Your task to perform on an android device: delete the emails in spam in the gmail app Image 0: 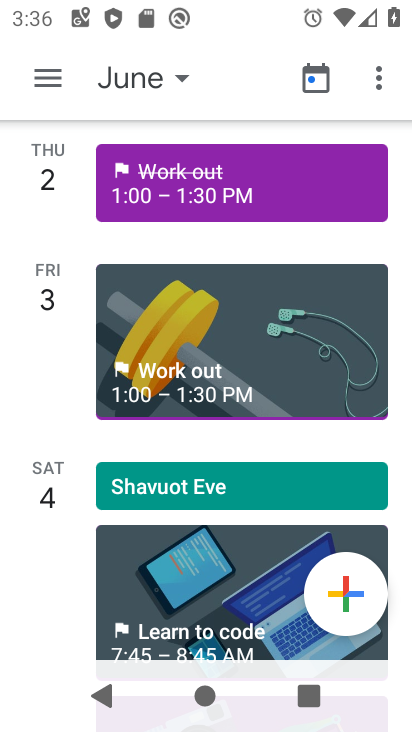
Step 0: press home button
Your task to perform on an android device: delete the emails in spam in the gmail app Image 1: 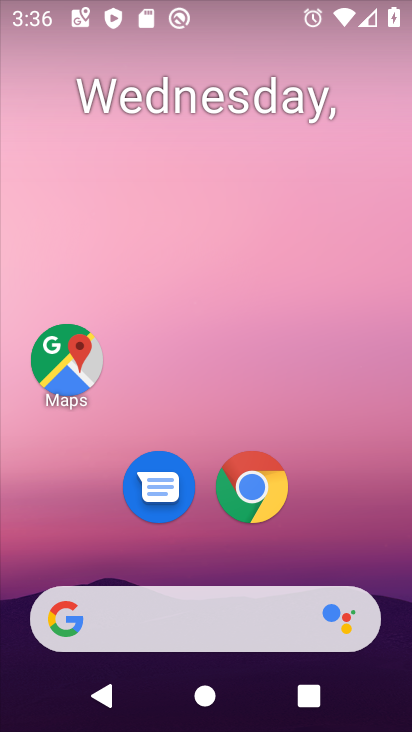
Step 1: drag from (352, 538) to (348, 227)
Your task to perform on an android device: delete the emails in spam in the gmail app Image 2: 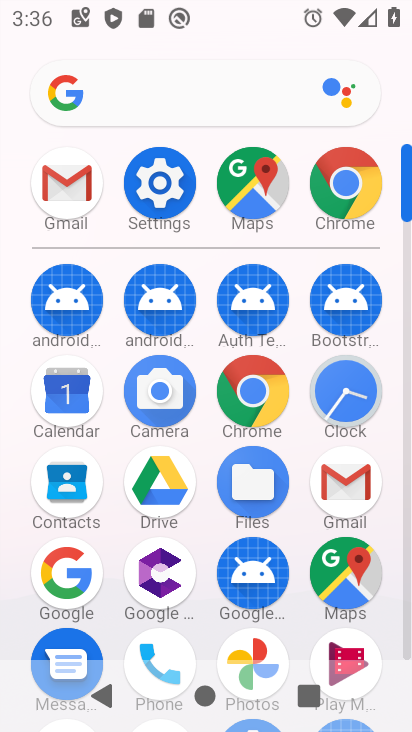
Step 2: click (350, 490)
Your task to perform on an android device: delete the emails in spam in the gmail app Image 3: 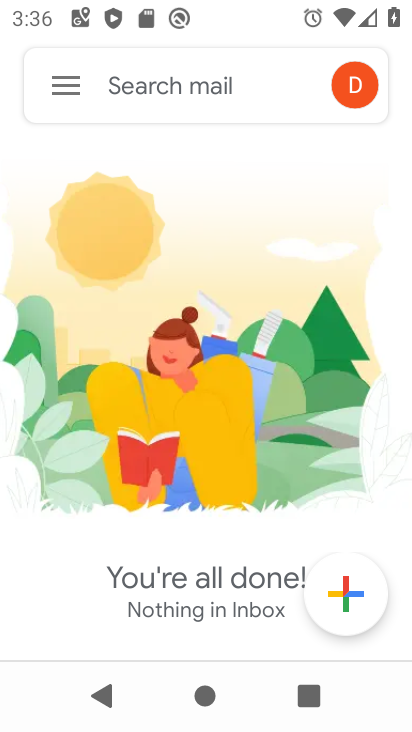
Step 3: click (70, 89)
Your task to perform on an android device: delete the emails in spam in the gmail app Image 4: 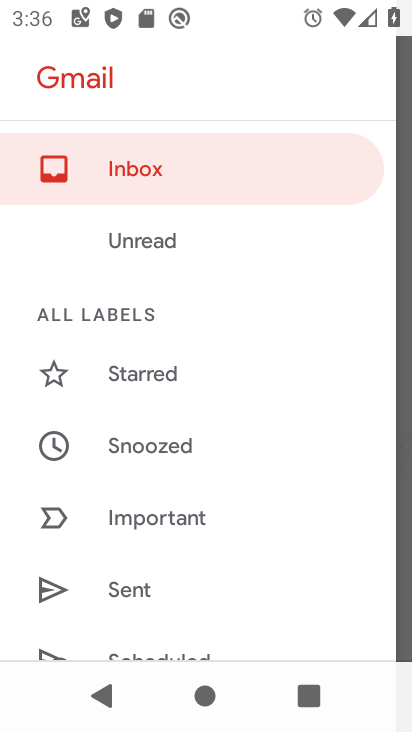
Step 4: drag from (250, 428) to (257, 319)
Your task to perform on an android device: delete the emails in spam in the gmail app Image 5: 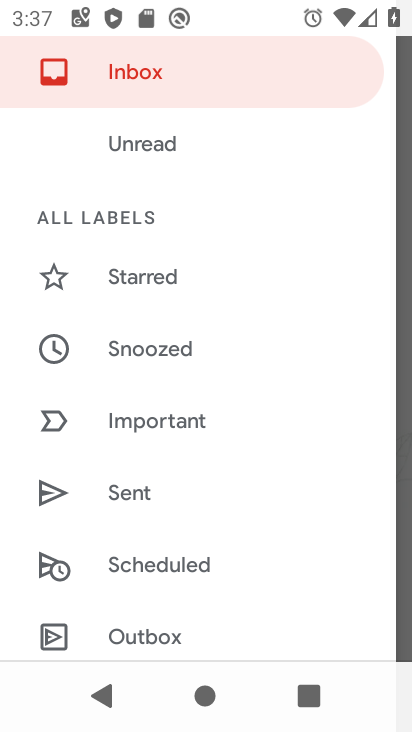
Step 5: drag from (253, 468) to (252, 362)
Your task to perform on an android device: delete the emails in spam in the gmail app Image 6: 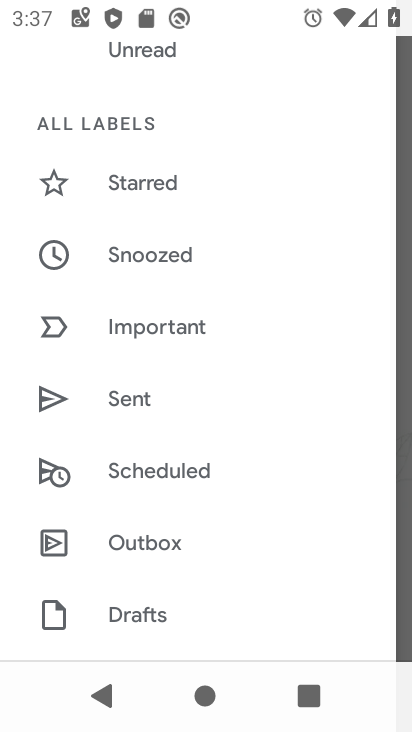
Step 6: drag from (296, 502) to (301, 358)
Your task to perform on an android device: delete the emails in spam in the gmail app Image 7: 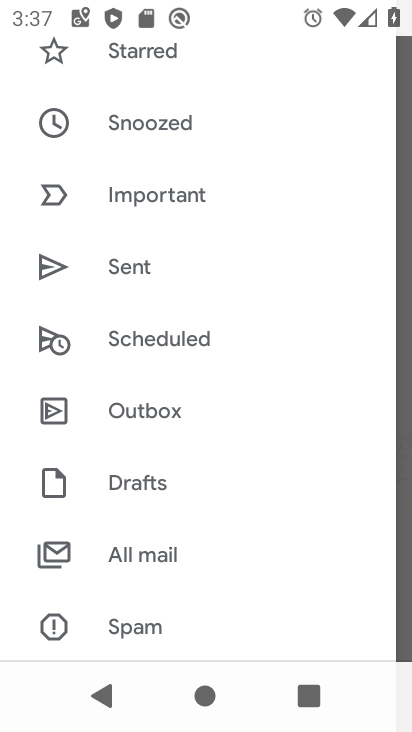
Step 7: drag from (302, 491) to (299, 317)
Your task to perform on an android device: delete the emails in spam in the gmail app Image 8: 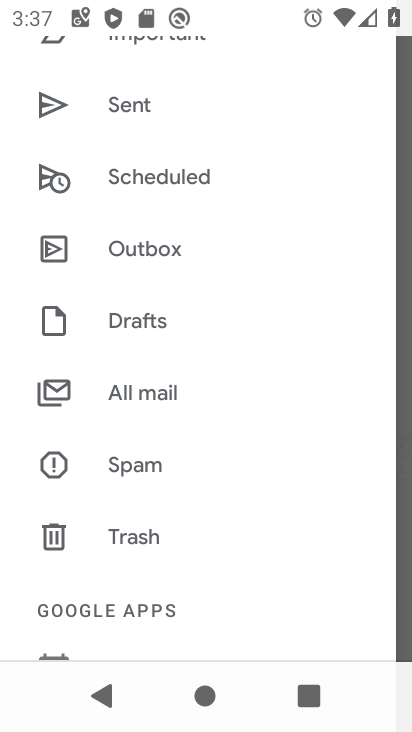
Step 8: drag from (304, 494) to (306, 363)
Your task to perform on an android device: delete the emails in spam in the gmail app Image 9: 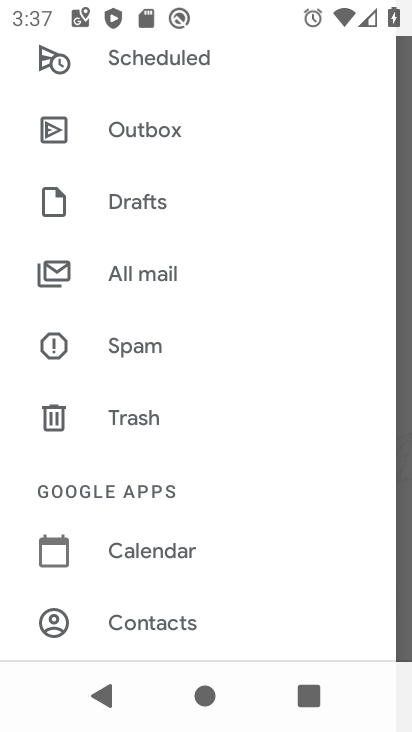
Step 9: drag from (296, 283) to (303, 425)
Your task to perform on an android device: delete the emails in spam in the gmail app Image 10: 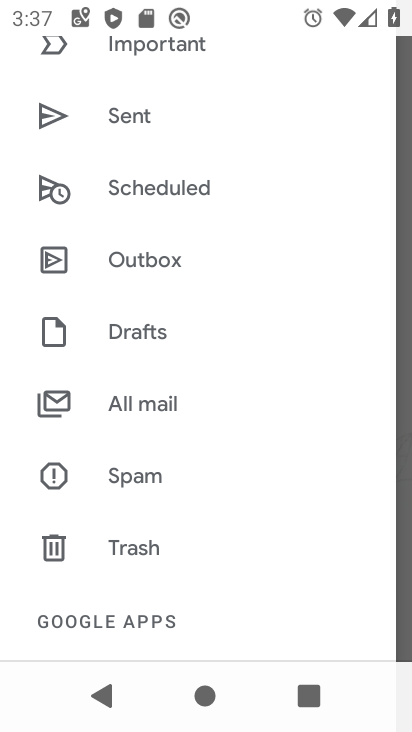
Step 10: drag from (298, 271) to (318, 377)
Your task to perform on an android device: delete the emails in spam in the gmail app Image 11: 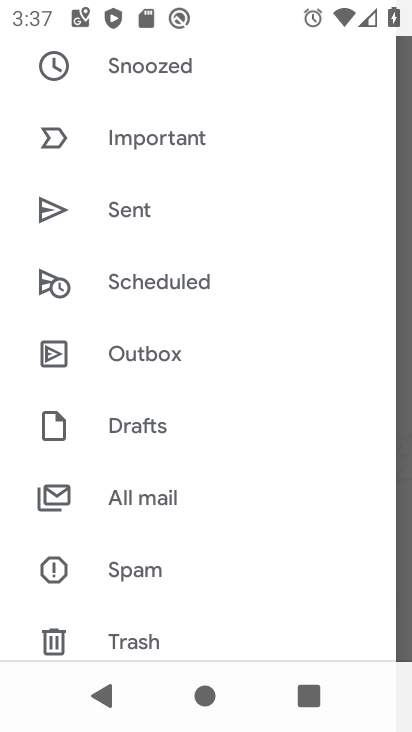
Step 11: drag from (310, 213) to (329, 456)
Your task to perform on an android device: delete the emails in spam in the gmail app Image 12: 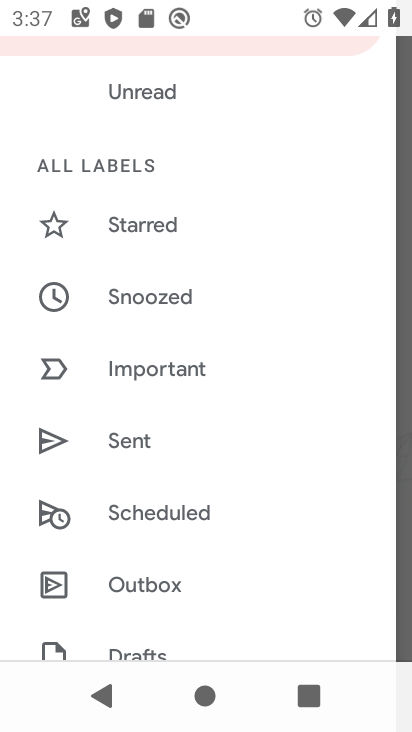
Step 12: drag from (293, 187) to (274, 380)
Your task to perform on an android device: delete the emails in spam in the gmail app Image 13: 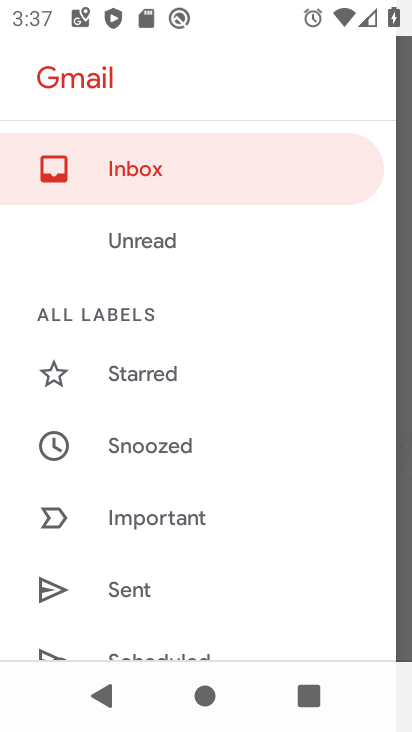
Step 13: click (248, 170)
Your task to perform on an android device: delete the emails in spam in the gmail app Image 14: 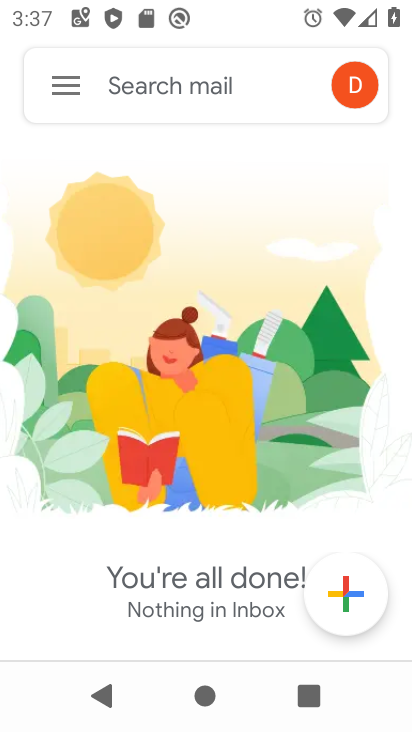
Step 14: task complete